Your task to perform on an android device: Go to network settings Image 0: 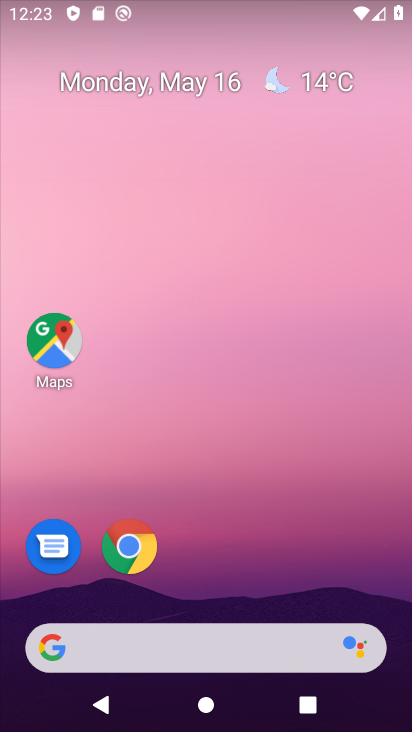
Step 0: drag from (187, 673) to (297, 127)
Your task to perform on an android device: Go to network settings Image 1: 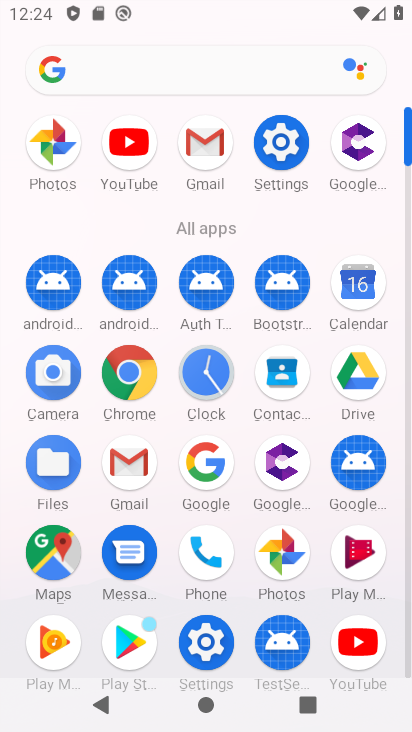
Step 1: click (277, 142)
Your task to perform on an android device: Go to network settings Image 2: 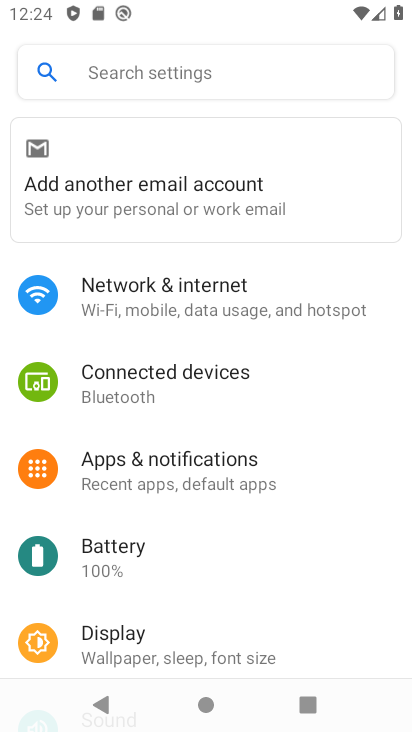
Step 2: click (184, 278)
Your task to perform on an android device: Go to network settings Image 3: 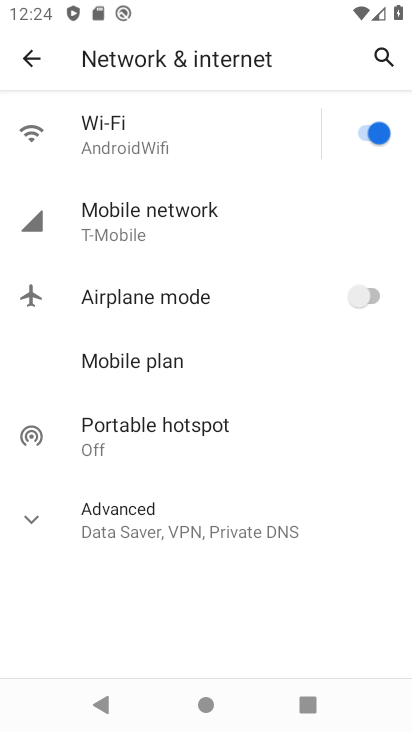
Step 3: task complete